Your task to perform on an android device: turn on wifi Image 0: 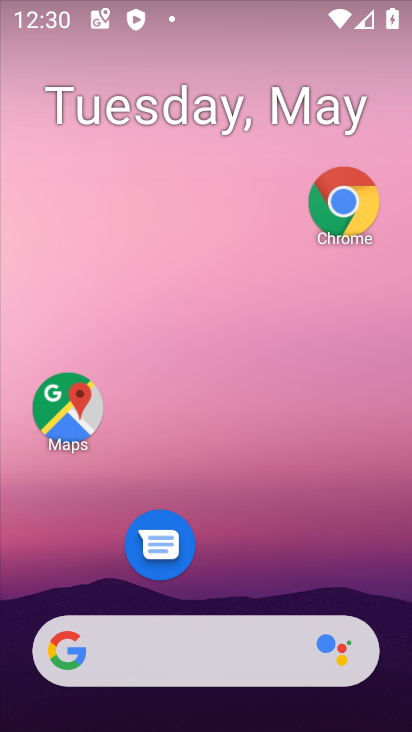
Step 0: drag from (200, 17) to (179, 631)
Your task to perform on an android device: turn on wifi Image 1: 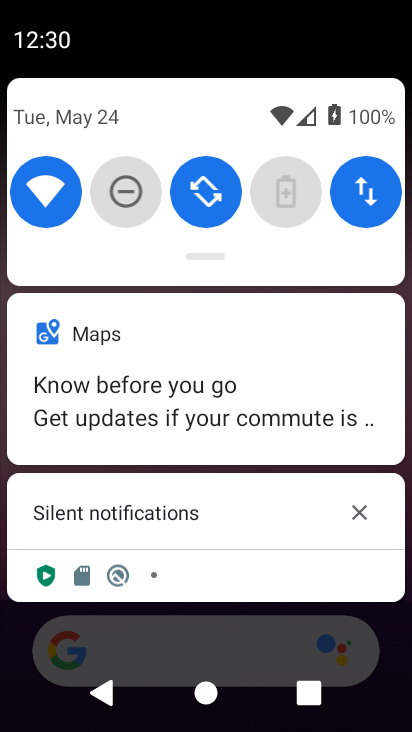
Step 1: task complete